Your task to perform on an android device: install app "Google Play Music" Image 0: 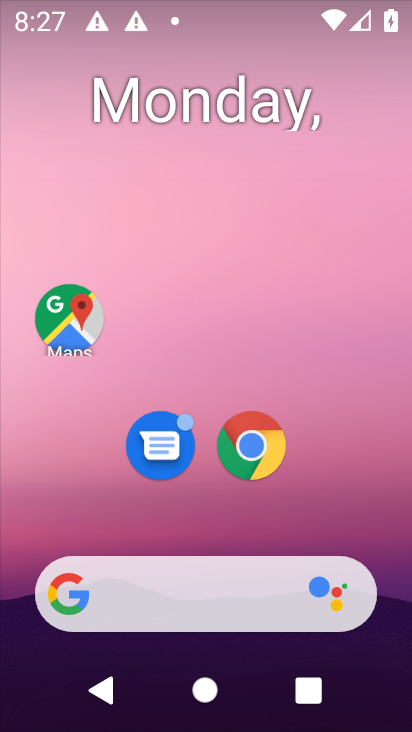
Step 0: drag from (390, 628) to (214, 80)
Your task to perform on an android device: install app "Google Play Music" Image 1: 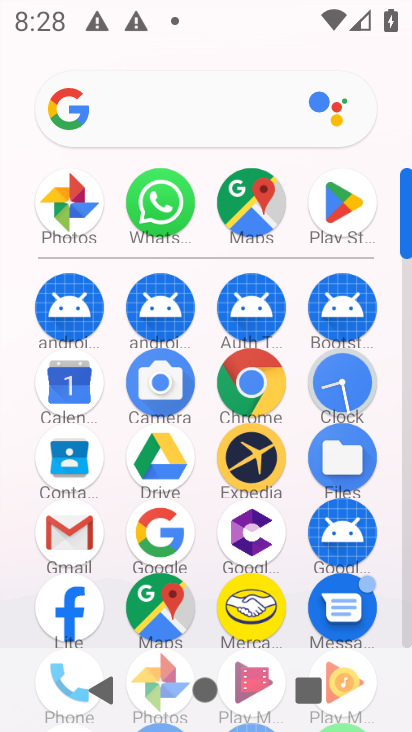
Step 1: click (347, 200)
Your task to perform on an android device: install app "Google Play Music" Image 2: 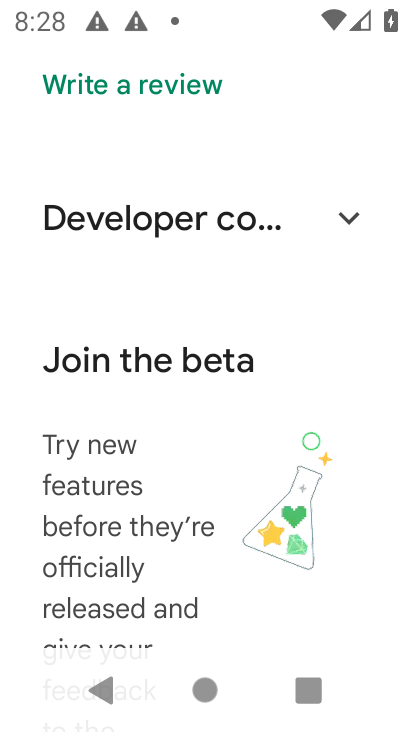
Step 2: press back button
Your task to perform on an android device: install app "Google Play Music" Image 3: 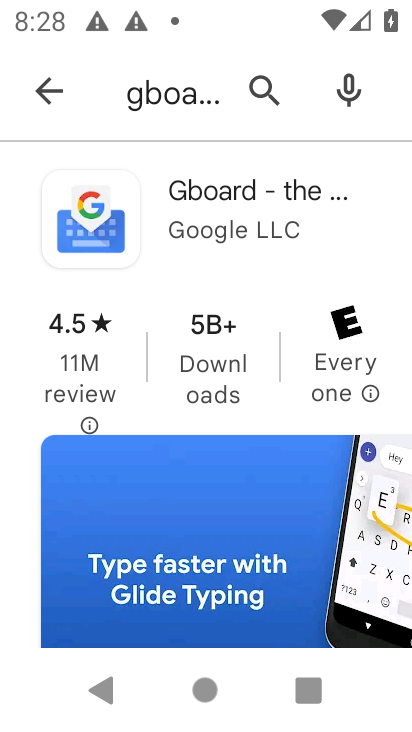
Step 3: press back button
Your task to perform on an android device: install app "Google Play Music" Image 4: 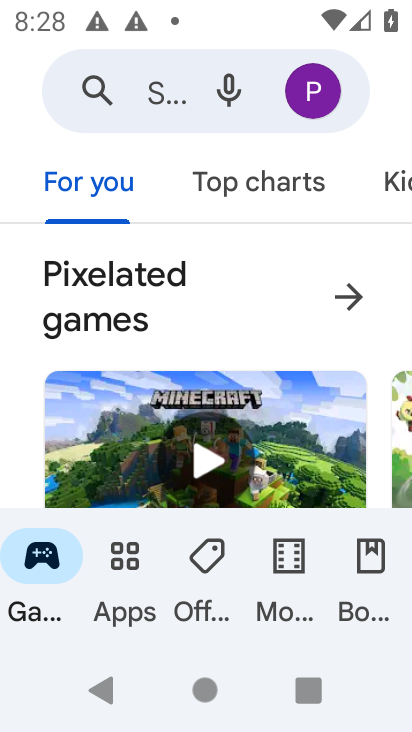
Step 4: click (151, 90)
Your task to perform on an android device: install app "Google Play Music" Image 5: 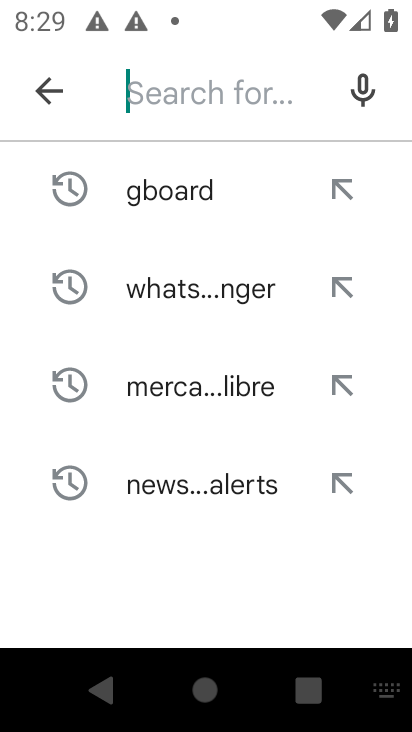
Step 5: type "Google Play Music"
Your task to perform on an android device: install app "Google Play Music" Image 6: 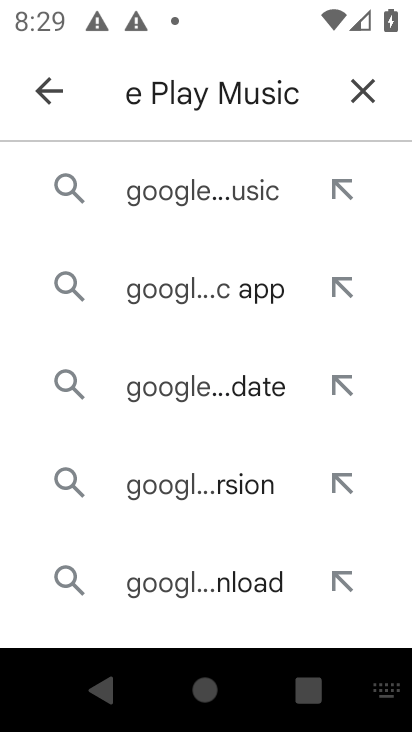
Step 6: click (185, 199)
Your task to perform on an android device: install app "Google Play Music" Image 7: 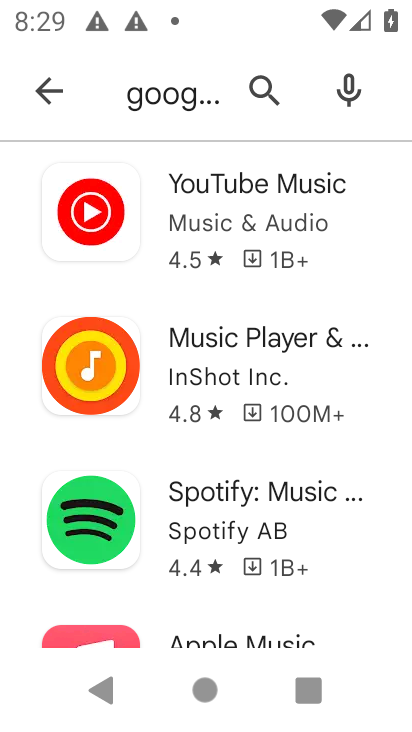
Step 7: task complete